Your task to perform on an android device: turn on data saver in the chrome app Image 0: 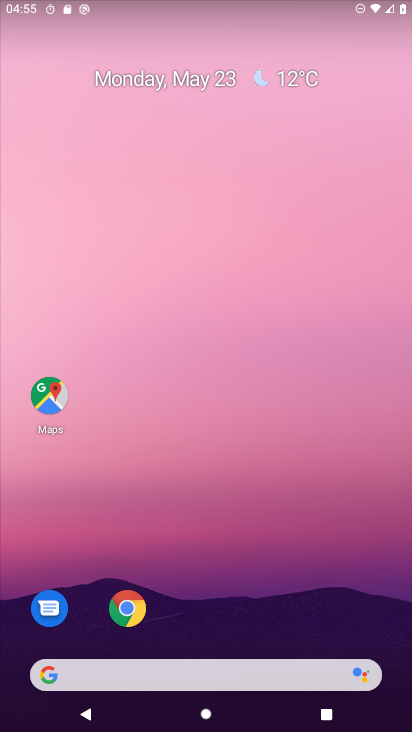
Step 0: click (135, 603)
Your task to perform on an android device: turn on data saver in the chrome app Image 1: 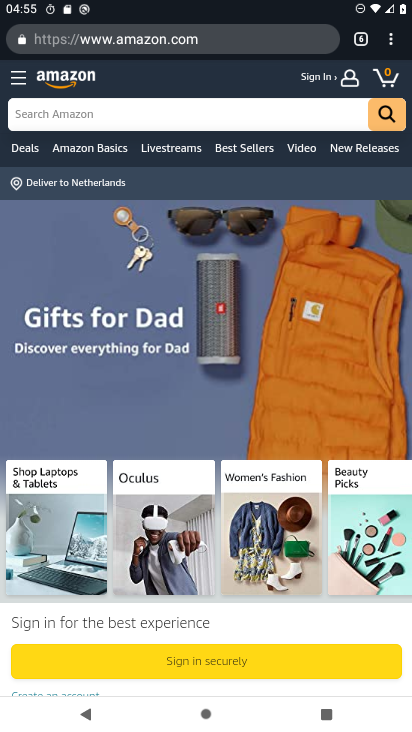
Step 1: click (381, 44)
Your task to perform on an android device: turn on data saver in the chrome app Image 2: 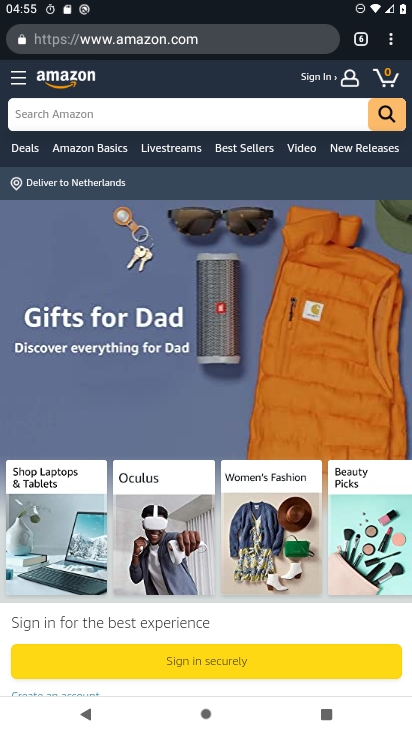
Step 2: click (394, 44)
Your task to perform on an android device: turn on data saver in the chrome app Image 3: 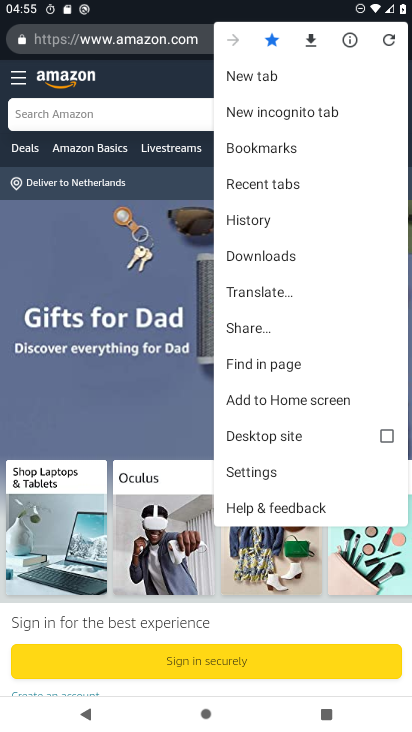
Step 3: click (283, 473)
Your task to perform on an android device: turn on data saver in the chrome app Image 4: 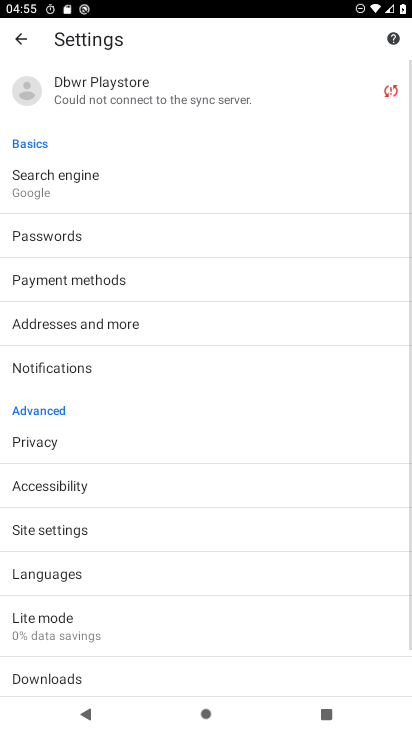
Step 4: click (156, 644)
Your task to perform on an android device: turn on data saver in the chrome app Image 5: 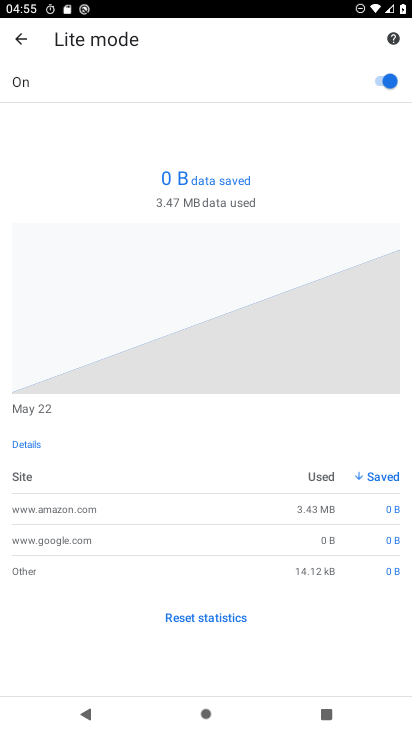
Step 5: task complete